Your task to perform on an android device: Open Google Maps and go to "Timeline" Image 0: 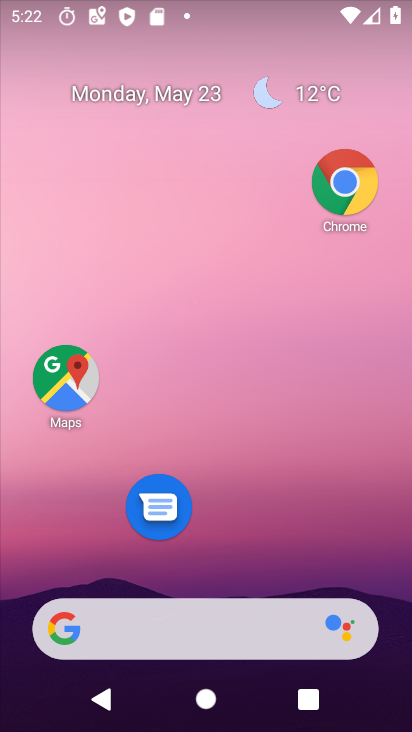
Step 0: click (45, 403)
Your task to perform on an android device: Open Google Maps and go to "Timeline" Image 1: 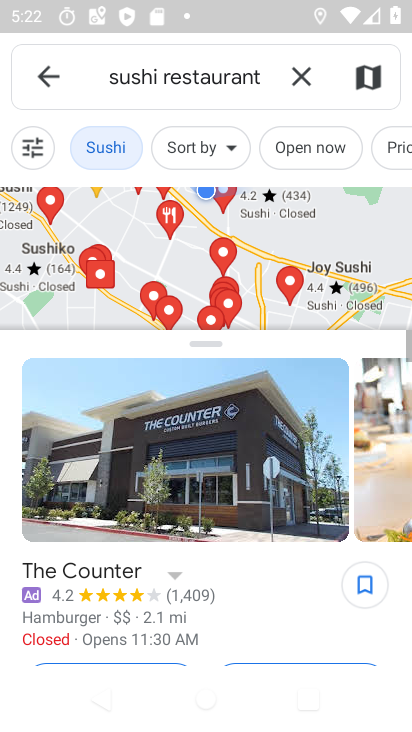
Step 1: click (54, 81)
Your task to perform on an android device: Open Google Maps and go to "Timeline" Image 2: 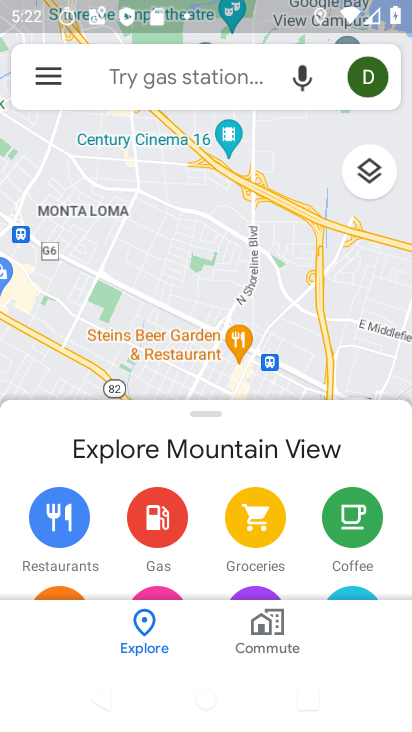
Step 2: click (54, 81)
Your task to perform on an android device: Open Google Maps and go to "Timeline" Image 3: 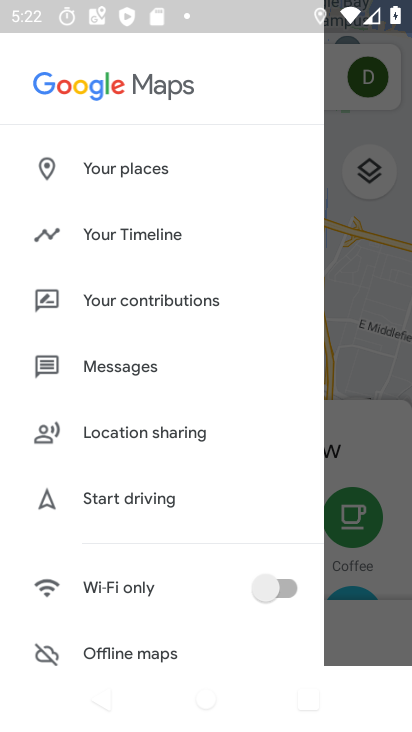
Step 3: click (99, 219)
Your task to perform on an android device: Open Google Maps and go to "Timeline" Image 4: 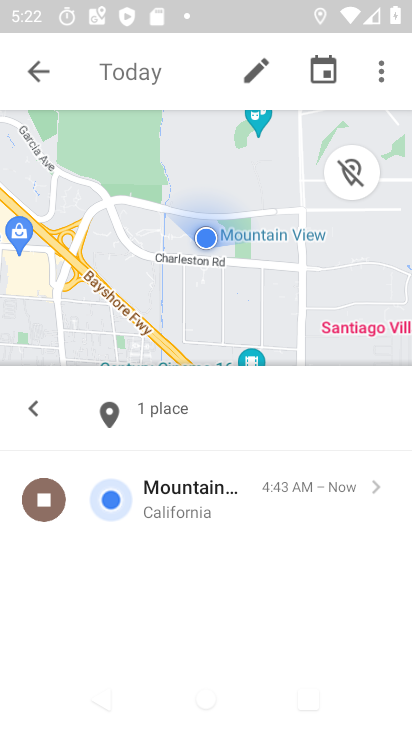
Step 4: task complete